Your task to perform on an android device: Open battery settings Image 0: 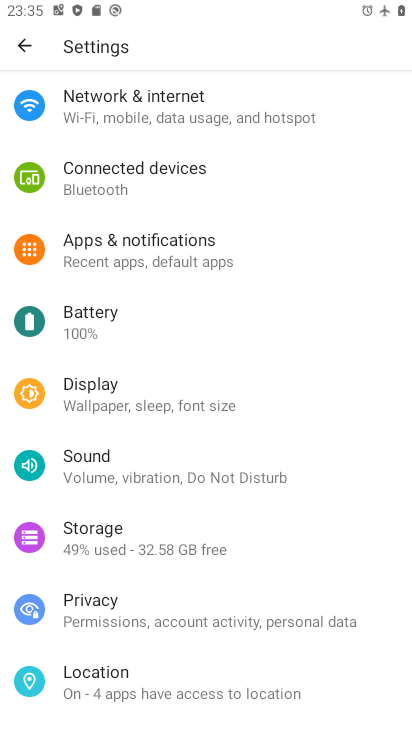
Step 0: click (153, 310)
Your task to perform on an android device: Open battery settings Image 1: 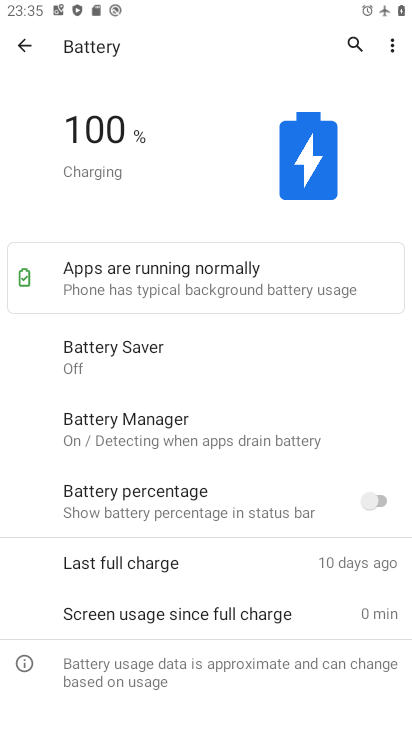
Step 1: task complete